Your task to perform on an android device: check storage Image 0: 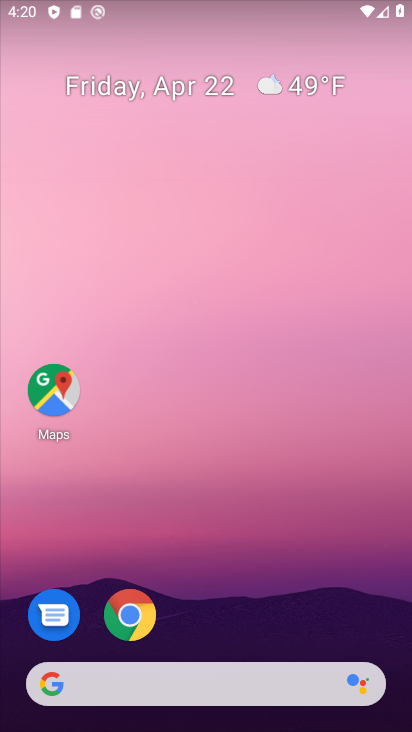
Step 0: drag from (208, 621) to (213, 160)
Your task to perform on an android device: check storage Image 1: 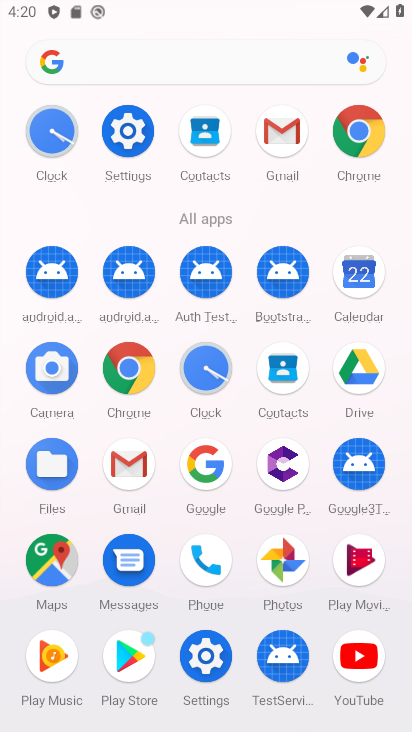
Step 1: click (134, 135)
Your task to perform on an android device: check storage Image 2: 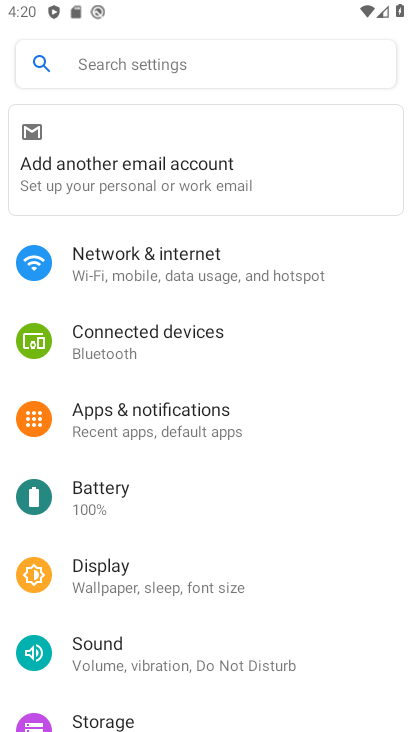
Step 2: drag from (210, 620) to (234, 294)
Your task to perform on an android device: check storage Image 3: 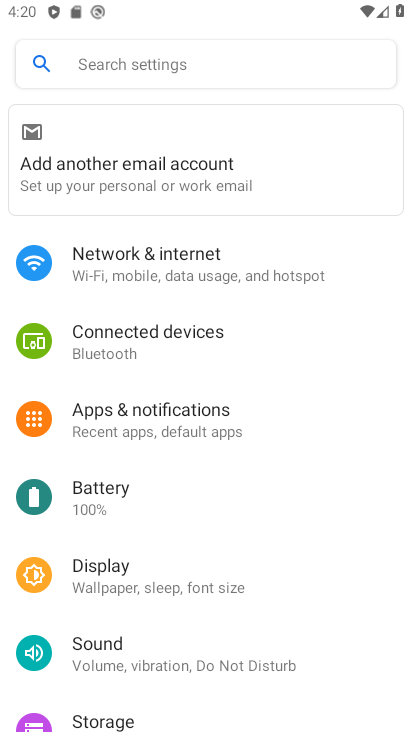
Step 3: drag from (219, 617) to (274, 338)
Your task to perform on an android device: check storage Image 4: 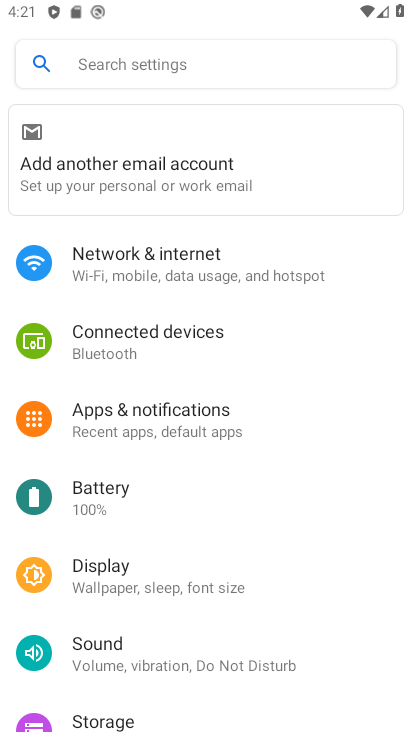
Step 4: click (114, 718)
Your task to perform on an android device: check storage Image 5: 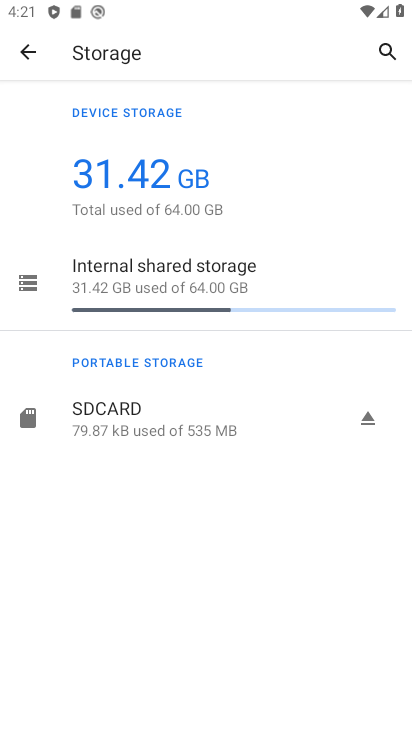
Step 5: task complete